Your task to perform on an android device: Play the last video I watched on Youtube Image 0: 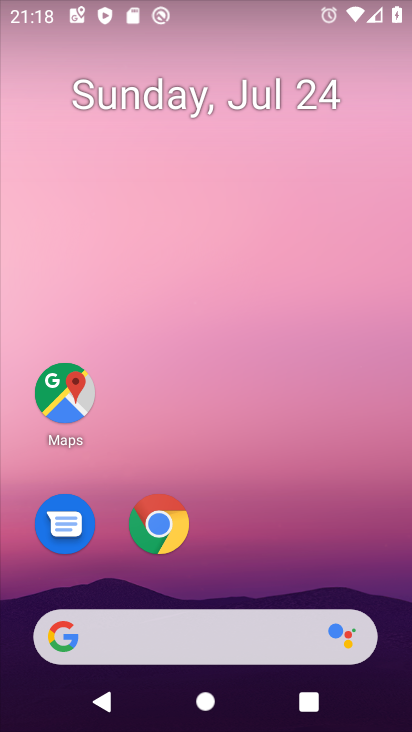
Step 0: drag from (246, 552) to (287, 48)
Your task to perform on an android device: Play the last video I watched on Youtube Image 1: 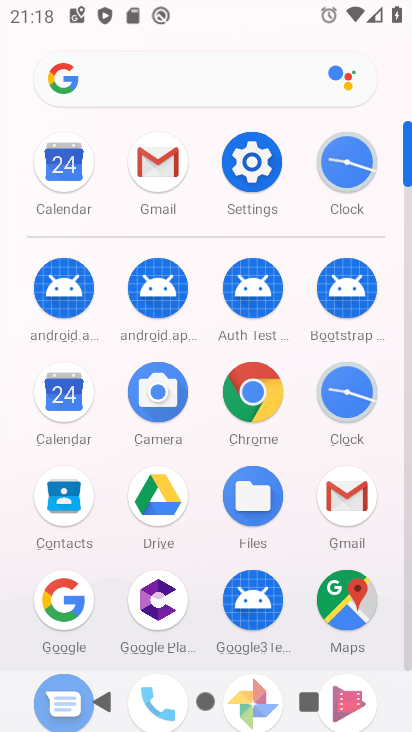
Step 1: drag from (194, 485) to (222, 67)
Your task to perform on an android device: Play the last video I watched on Youtube Image 2: 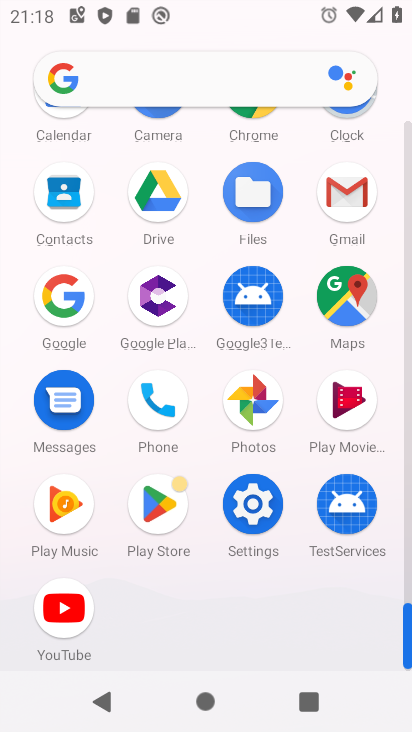
Step 2: click (71, 608)
Your task to perform on an android device: Play the last video I watched on Youtube Image 3: 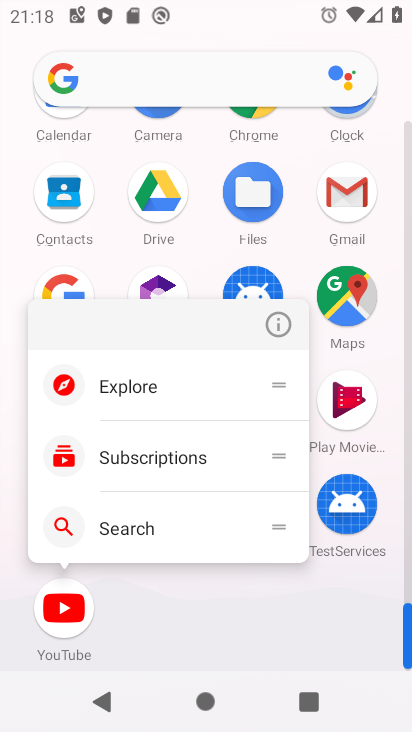
Step 3: click (72, 608)
Your task to perform on an android device: Play the last video I watched on Youtube Image 4: 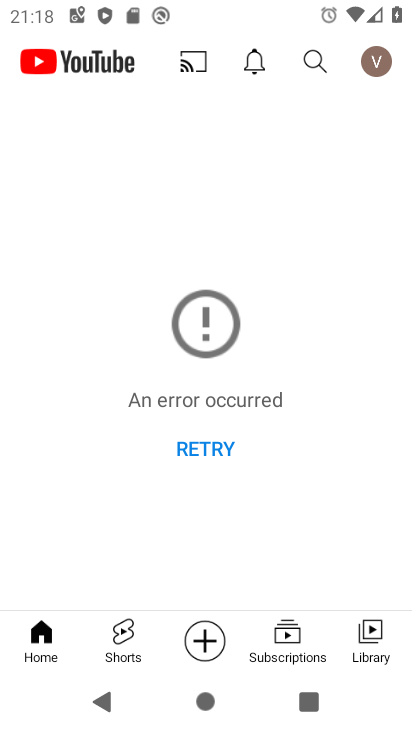
Step 4: click (371, 639)
Your task to perform on an android device: Play the last video I watched on Youtube Image 5: 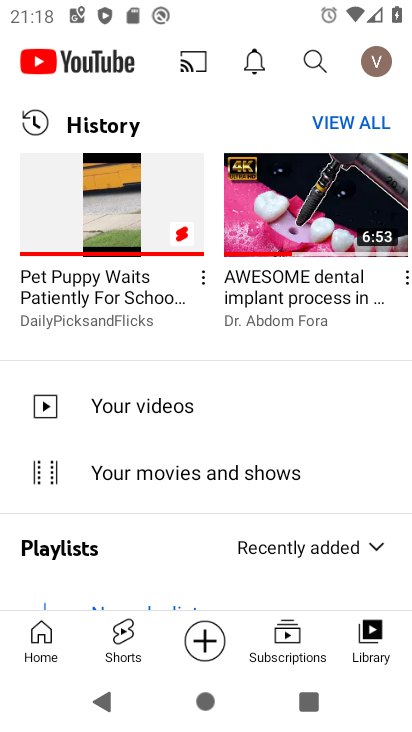
Step 5: click (82, 218)
Your task to perform on an android device: Play the last video I watched on Youtube Image 6: 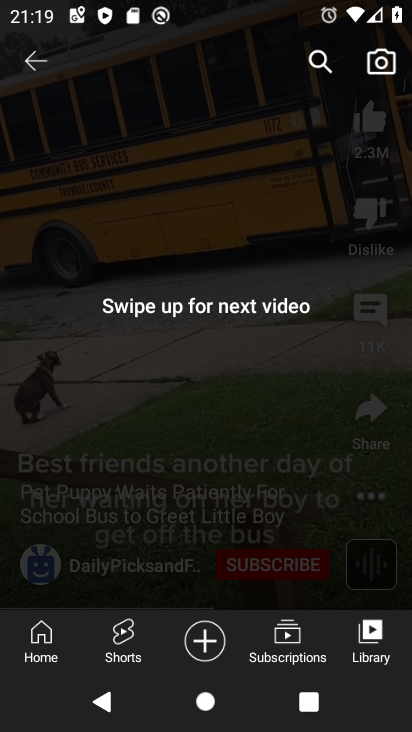
Step 6: click (262, 301)
Your task to perform on an android device: Play the last video I watched on Youtube Image 7: 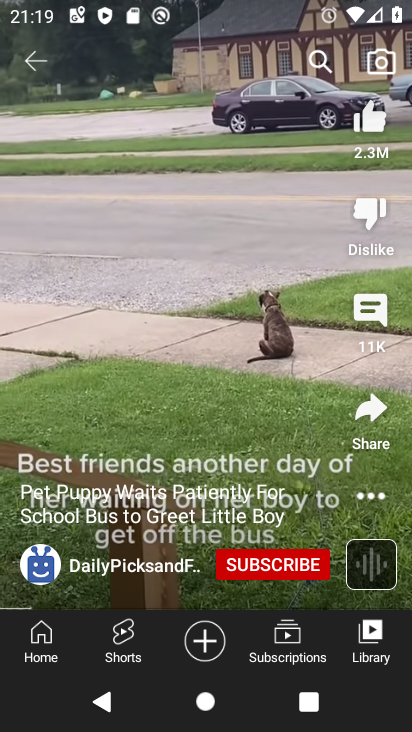
Step 7: task complete